Your task to perform on an android device: Check the weather Image 0: 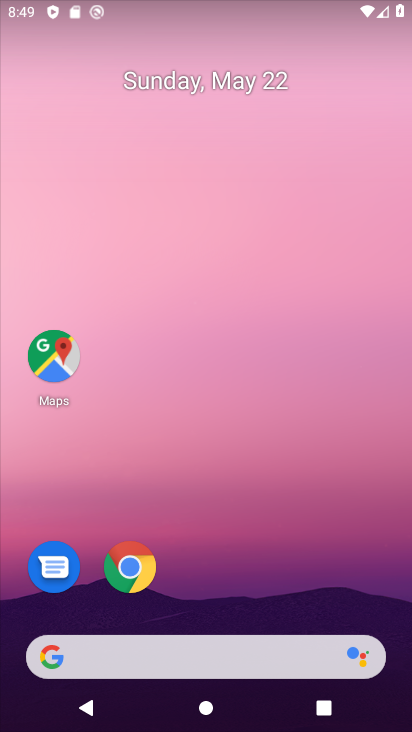
Step 0: click (206, 655)
Your task to perform on an android device: Check the weather Image 1: 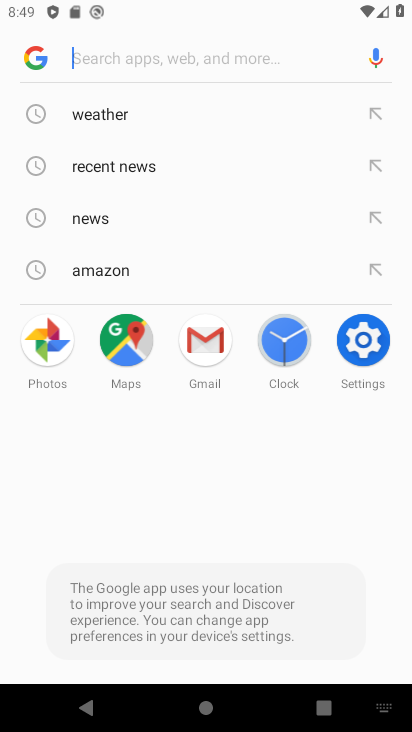
Step 1: click (93, 121)
Your task to perform on an android device: Check the weather Image 2: 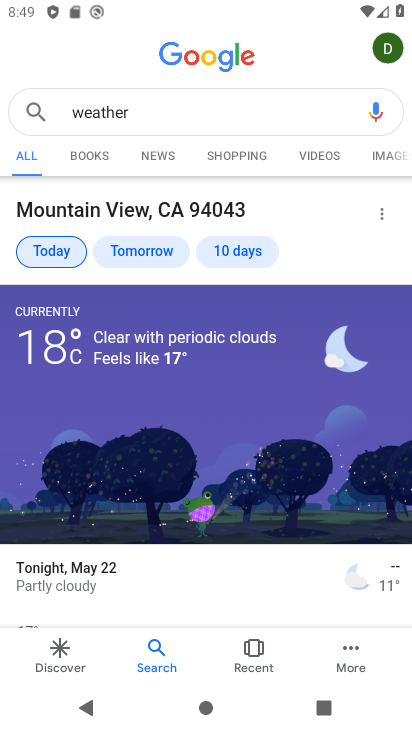
Step 2: task complete